Your task to perform on an android device: turn off location history Image 0: 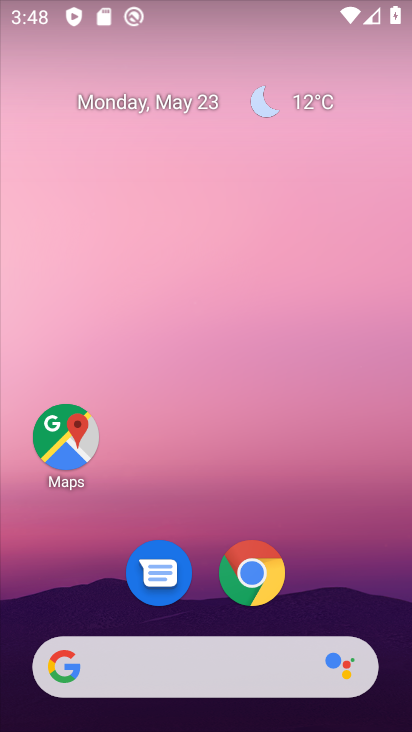
Step 0: drag from (15, 545) to (172, 130)
Your task to perform on an android device: turn off location history Image 1: 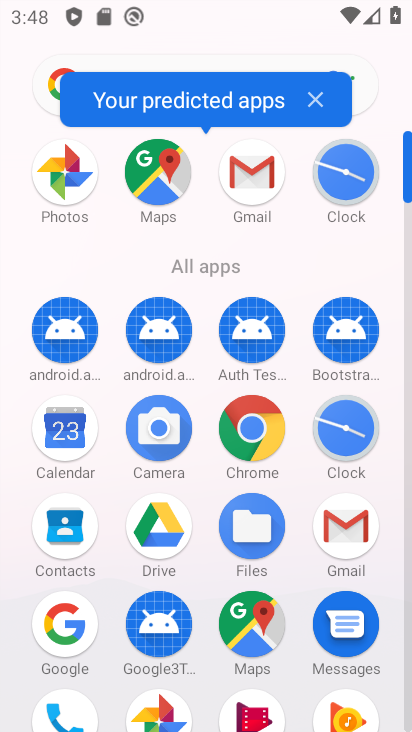
Step 1: drag from (12, 527) to (137, 191)
Your task to perform on an android device: turn off location history Image 2: 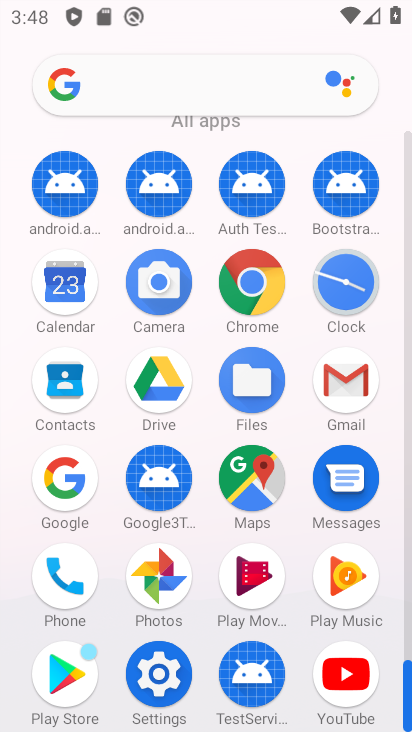
Step 2: click (162, 657)
Your task to perform on an android device: turn off location history Image 3: 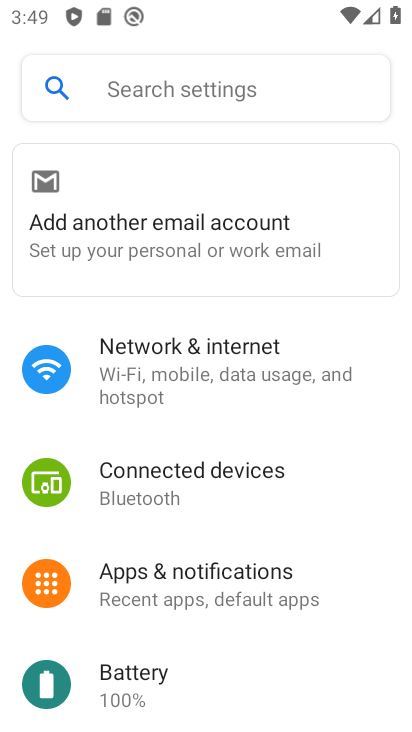
Step 3: drag from (64, 452) to (176, 242)
Your task to perform on an android device: turn off location history Image 4: 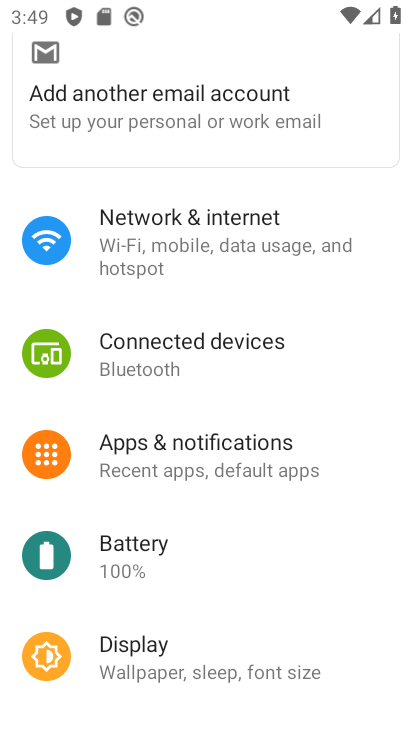
Step 4: drag from (81, 410) to (160, 203)
Your task to perform on an android device: turn off location history Image 5: 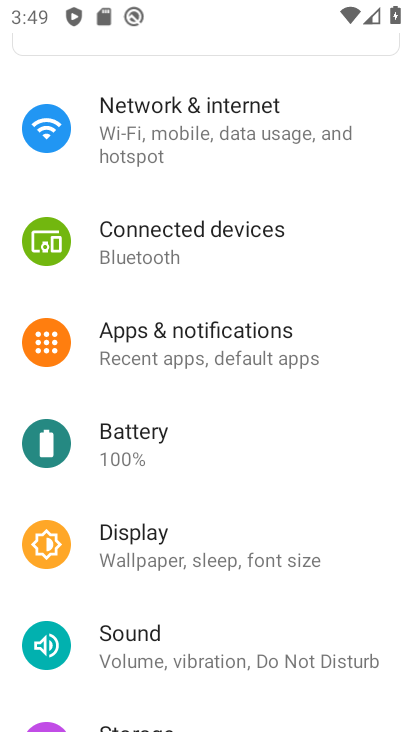
Step 5: drag from (69, 496) to (240, 219)
Your task to perform on an android device: turn off location history Image 6: 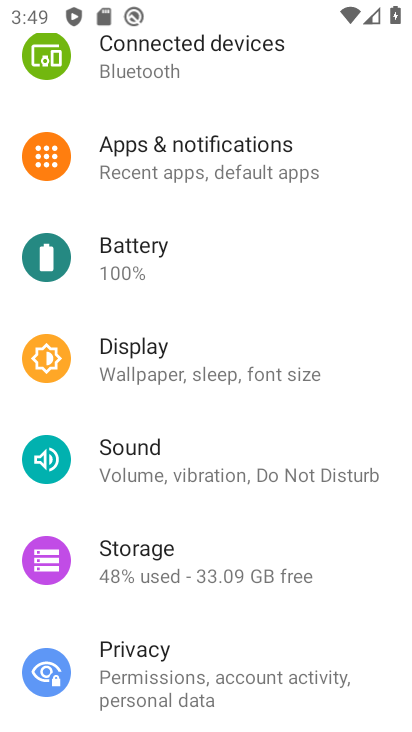
Step 6: drag from (1, 681) to (262, 176)
Your task to perform on an android device: turn off location history Image 7: 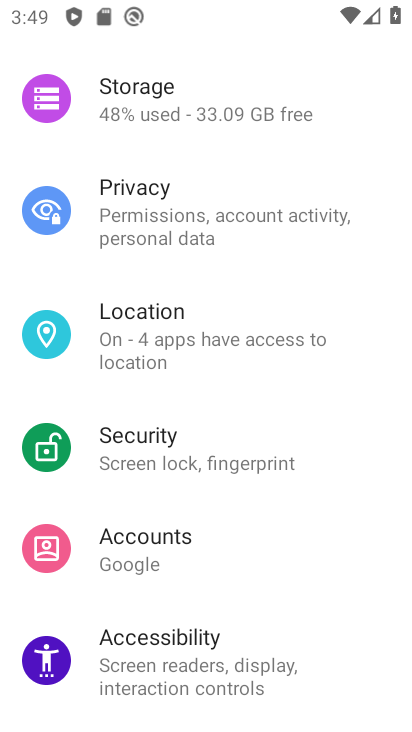
Step 7: click (163, 313)
Your task to perform on an android device: turn off location history Image 8: 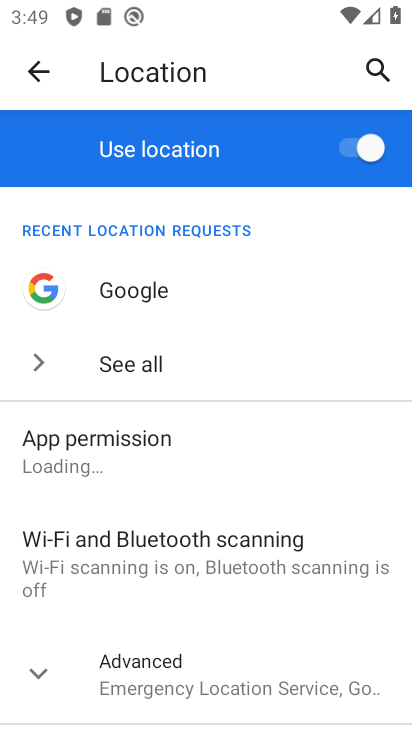
Step 8: click (118, 658)
Your task to perform on an android device: turn off location history Image 9: 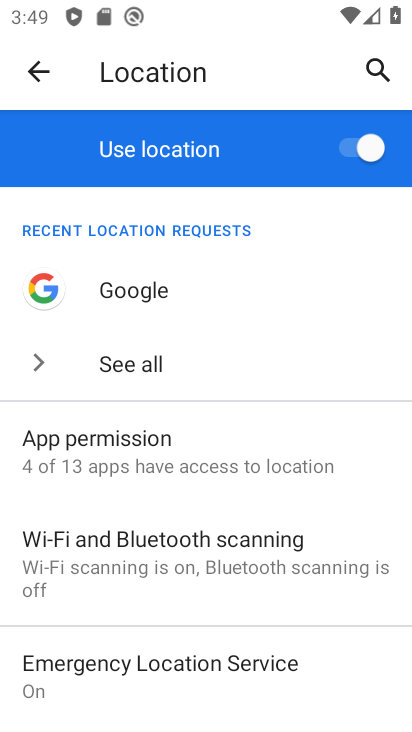
Step 9: drag from (18, 359) to (154, 163)
Your task to perform on an android device: turn off location history Image 10: 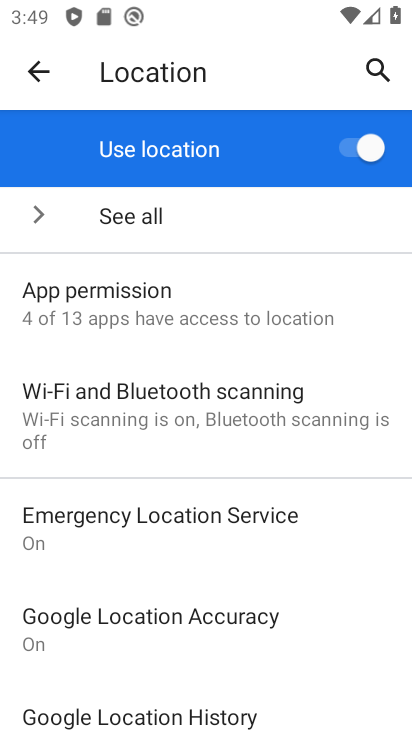
Step 10: drag from (27, 515) to (220, 207)
Your task to perform on an android device: turn off location history Image 11: 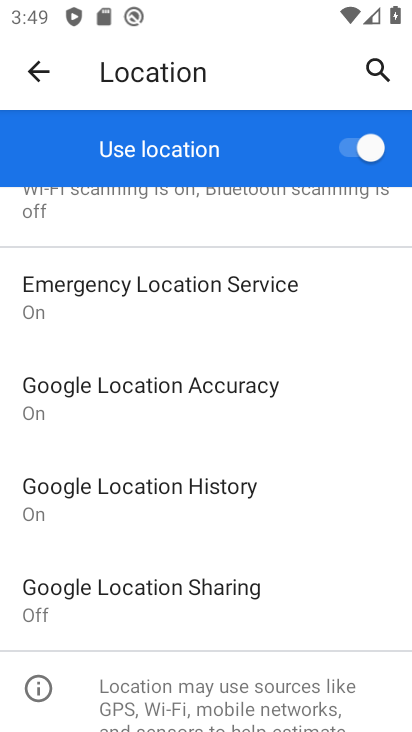
Step 11: click (116, 488)
Your task to perform on an android device: turn off location history Image 12: 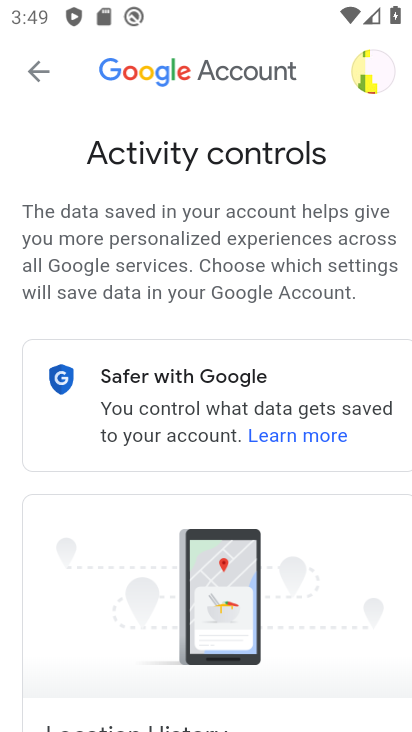
Step 12: drag from (60, 531) to (264, 71)
Your task to perform on an android device: turn off location history Image 13: 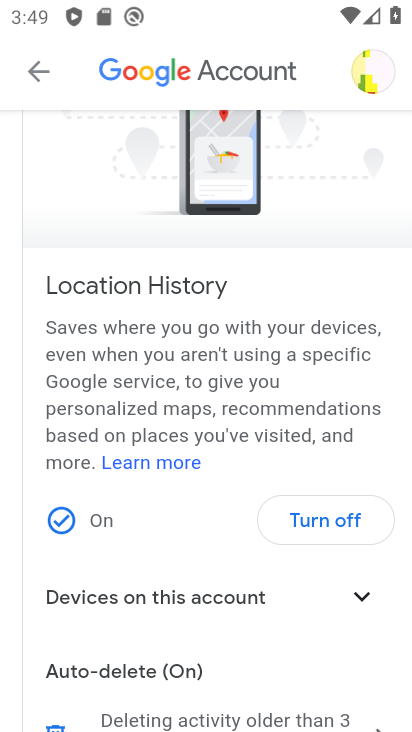
Step 13: click (308, 525)
Your task to perform on an android device: turn off location history Image 14: 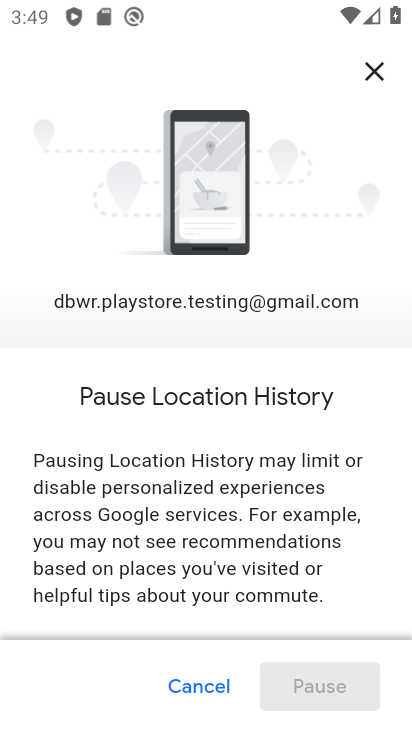
Step 14: drag from (118, 542) to (333, 52)
Your task to perform on an android device: turn off location history Image 15: 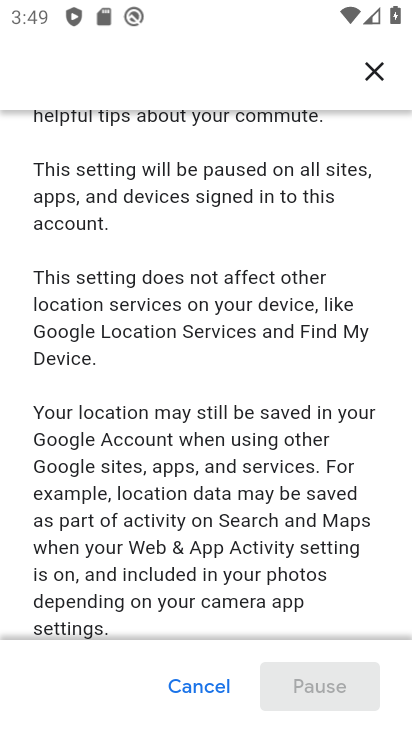
Step 15: drag from (28, 513) to (253, 124)
Your task to perform on an android device: turn off location history Image 16: 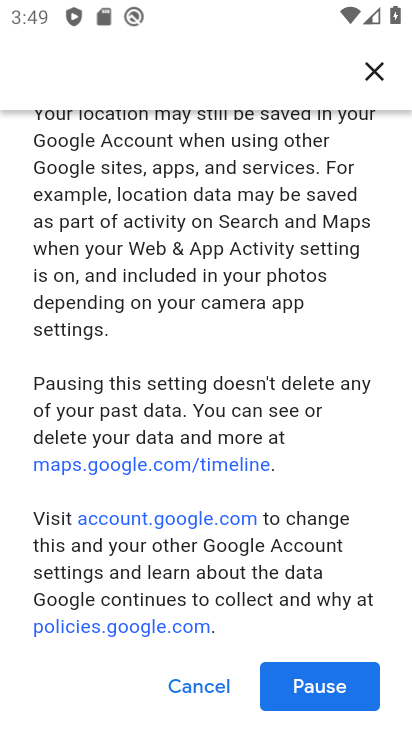
Step 16: click (313, 697)
Your task to perform on an android device: turn off location history Image 17: 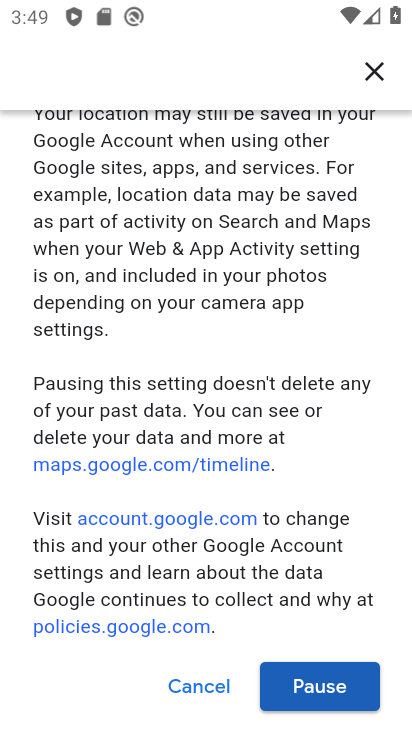
Step 17: click (323, 690)
Your task to perform on an android device: turn off location history Image 18: 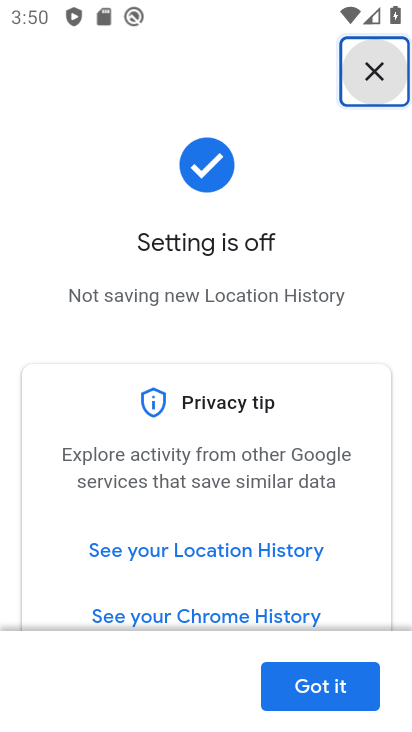
Step 18: click (338, 703)
Your task to perform on an android device: turn off location history Image 19: 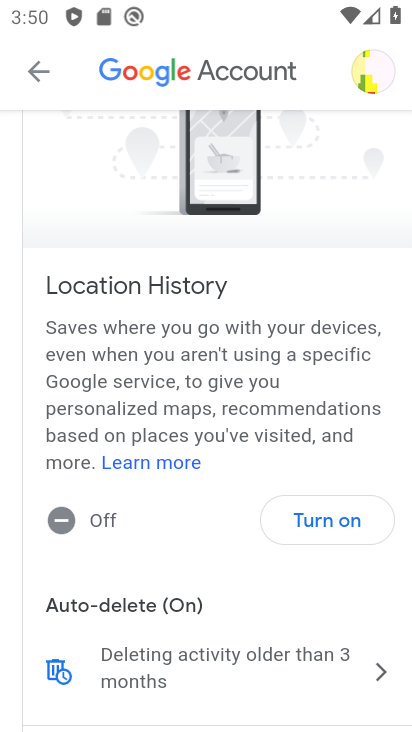
Step 19: task complete